Your task to perform on an android device: check the backup settings in the google photos Image 0: 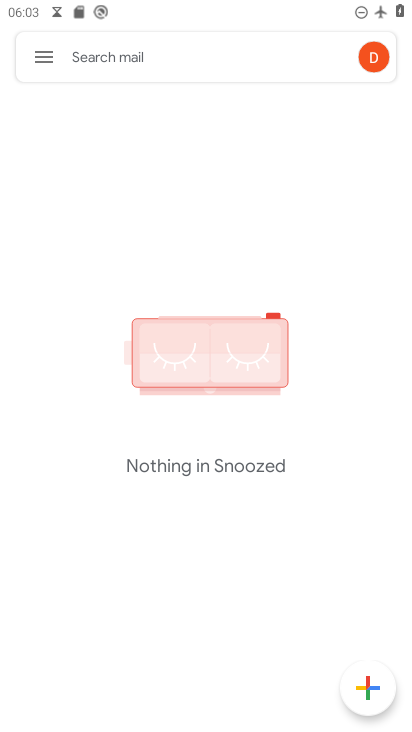
Step 0: press home button
Your task to perform on an android device: check the backup settings in the google photos Image 1: 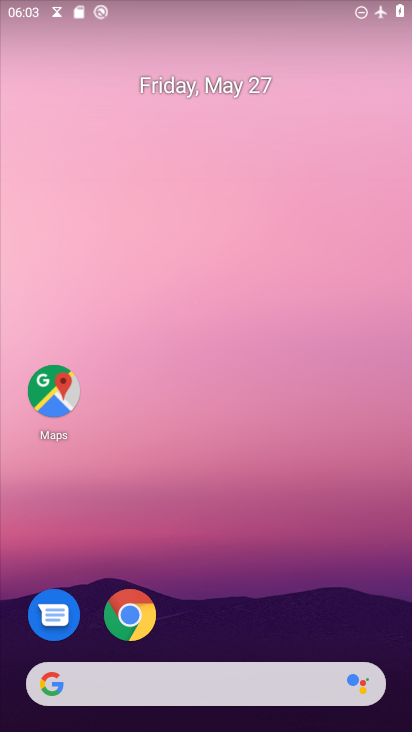
Step 1: drag from (283, 416) to (217, 45)
Your task to perform on an android device: check the backup settings in the google photos Image 2: 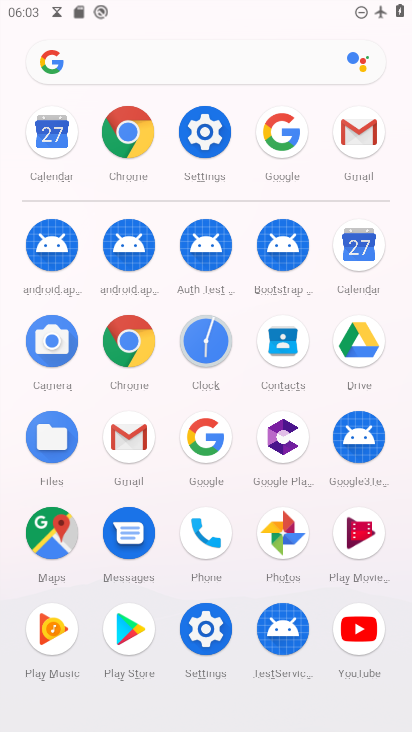
Step 2: click (285, 530)
Your task to perform on an android device: check the backup settings in the google photos Image 3: 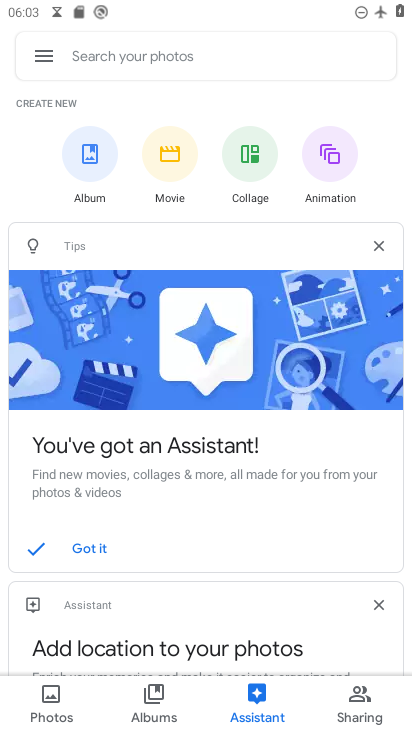
Step 3: click (48, 59)
Your task to perform on an android device: check the backup settings in the google photos Image 4: 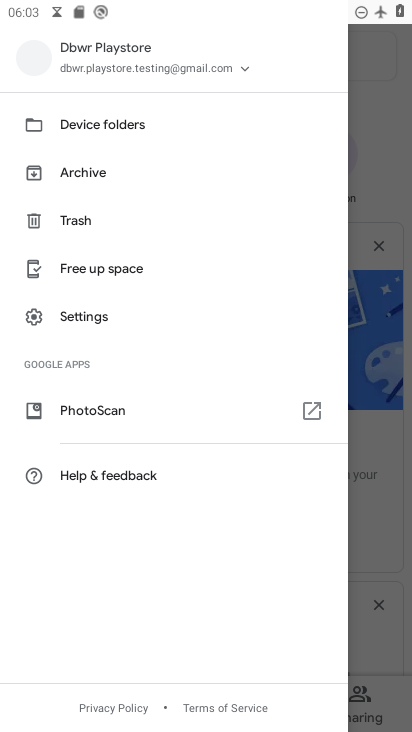
Step 4: click (95, 318)
Your task to perform on an android device: check the backup settings in the google photos Image 5: 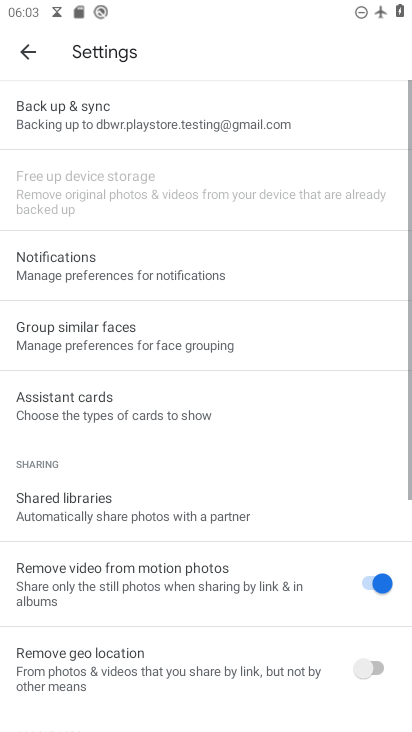
Step 5: click (131, 118)
Your task to perform on an android device: check the backup settings in the google photos Image 6: 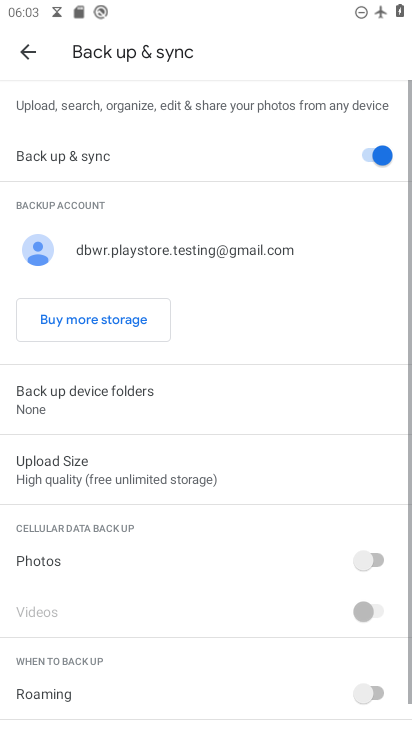
Step 6: task complete